Your task to perform on an android device: What's on my calendar today? Image 0: 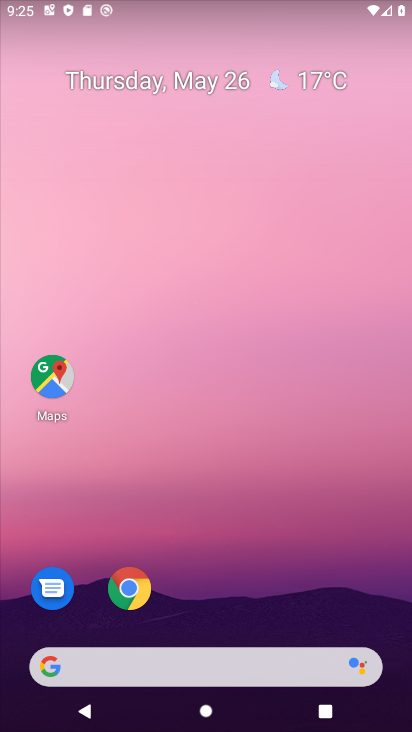
Step 0: drag from (382, 616) to (315, 84)
Your task to perform on an android device: What's on my calendar today? Image 1: 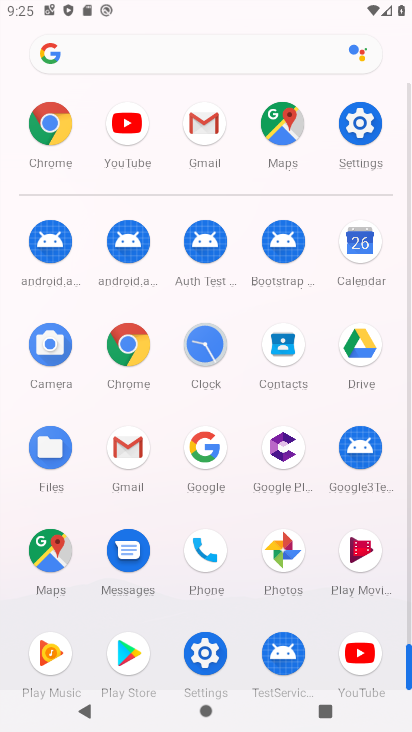
Step 1: click (359, 245)
Your task to perform on an android device: What's on my calendar today? Image 2: 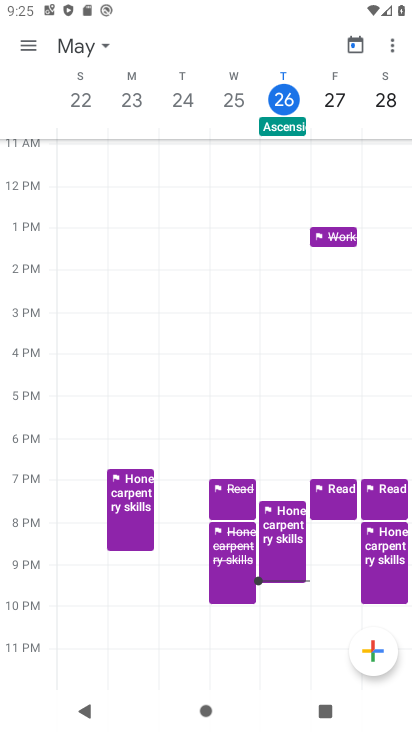
Step 2: click (25, 39)
Your task to perform on an android device: What's on my calendar today? Image 3: 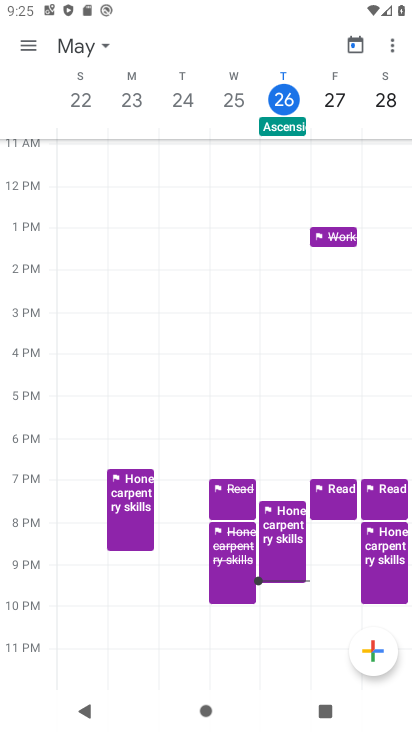
Step 3: click (25, 39)
Your task to perform on an android device: What's on my calendar today? Image 4: 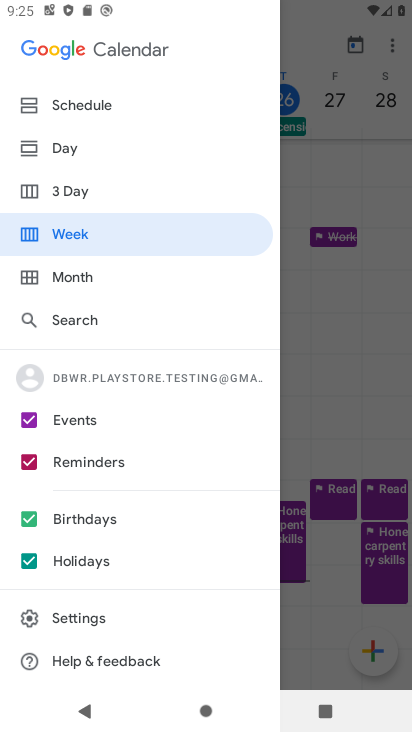
Step 4: click (70, 141)
Your task to perform on an android device: What's on my calendar today? Image 5: 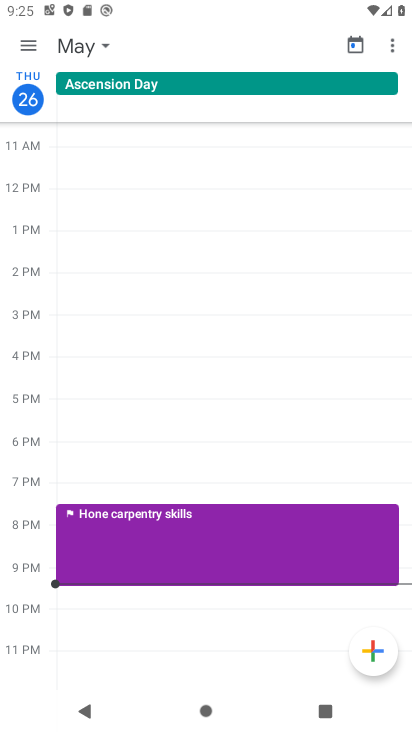
Step 5: click (106, 46)
Your task to perform on an android device: What's on my calendar today? Image 6: 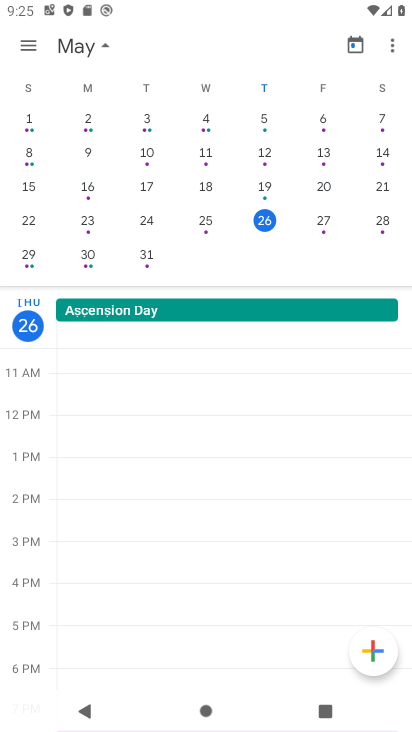
Step 6: task complete